Your task to perform on an android device: Show me popular games on the Play Store Image 0: 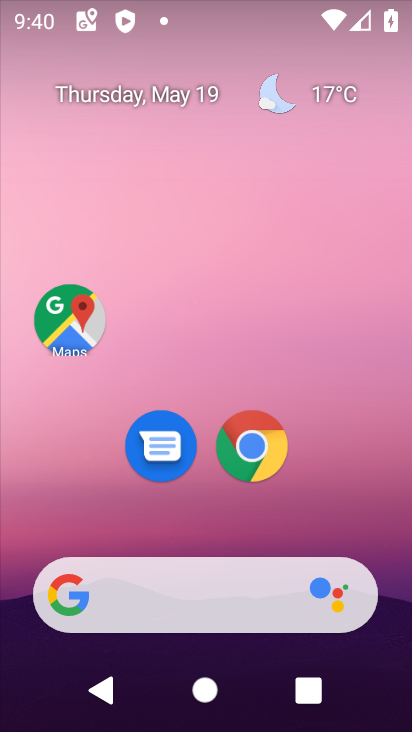
Step 0: drag from (206, 521) to (267, 12)
Your task to perform on an android device: Show me popular games on the Play Store Image 1: 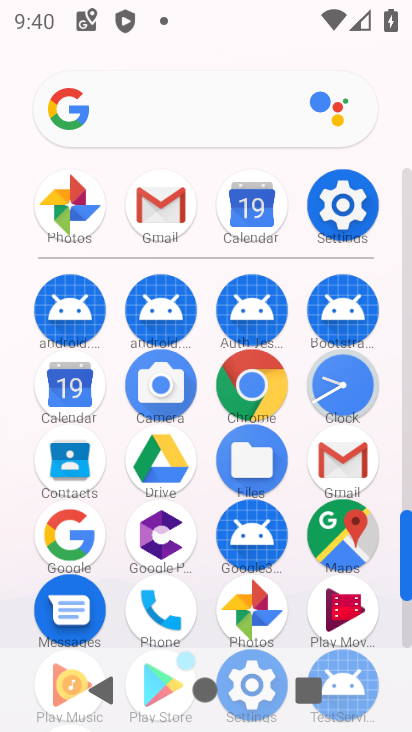
Step 1: drag from (117, 580) to (128, 258)
Your task to perform on an android device: Show me popular games on the Play Store Image 2: 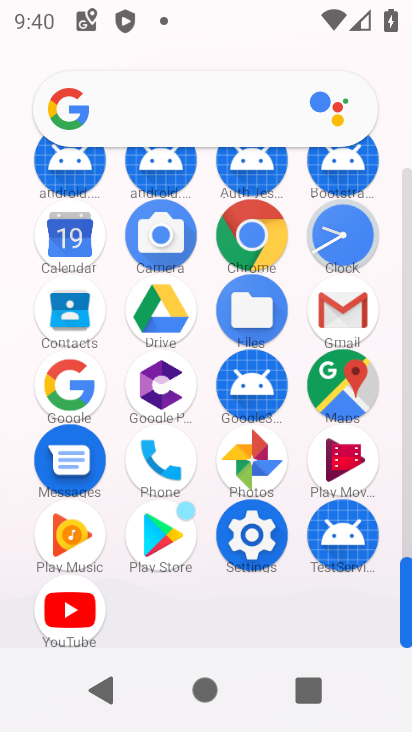
Step 2: click (150, 564)
Your task to perform on an android device: Show me popular games on the Play Store Image 3: 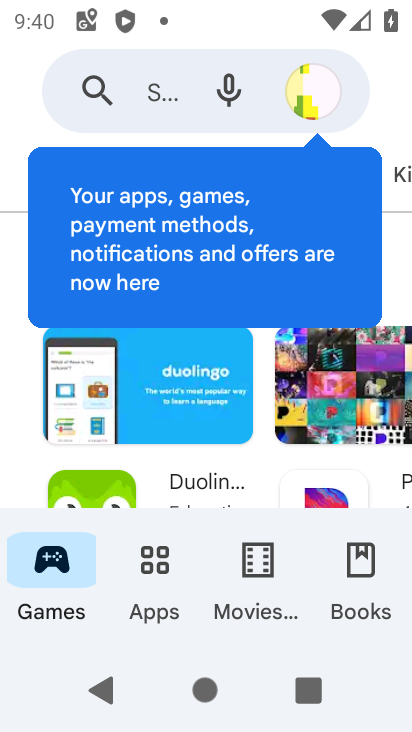
Step 3: click (14, 176)
Your task to perform on an android device: Show me popular games on the Play Store Image 4: 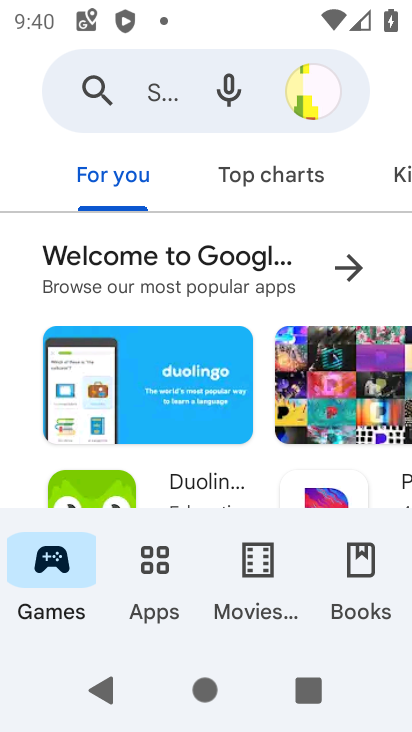
Step 4: click (303, 184)
Your task to perform on an android device: Show me popular games on the Play Store Image 5: 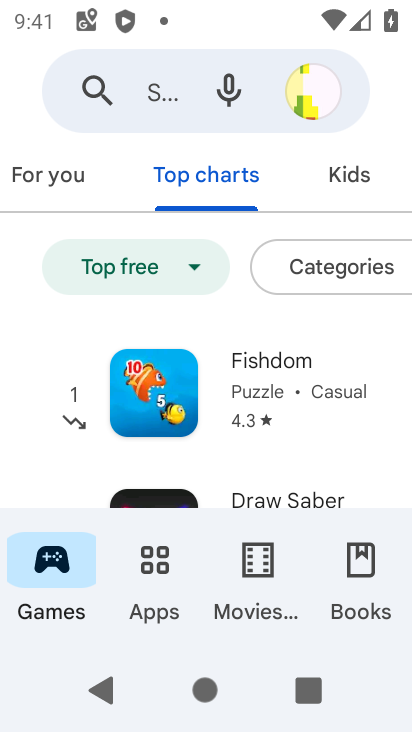
Step 5: task complete